Your task to perform on an android device: Open Yahoo.com Image 0: 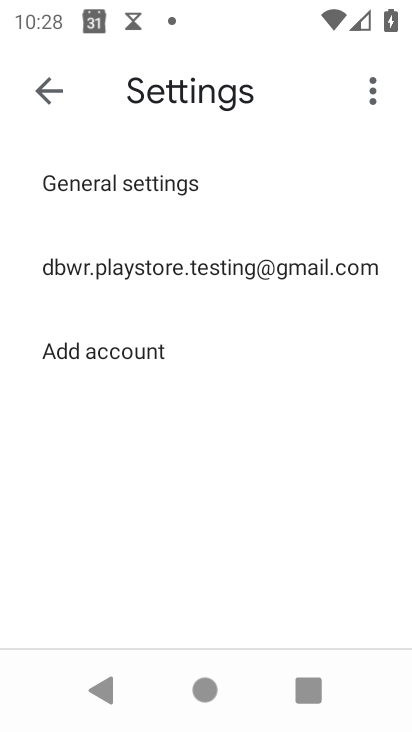
Step 0: press home button
Your task to perform on an android device: Open Yahoo.com Image 1: 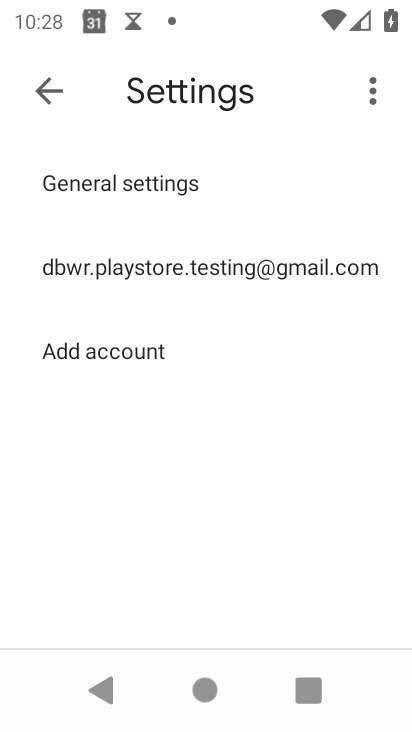
Step 1: press home button
Your task to perform on an android device: Open Yahoo.com Image 2: 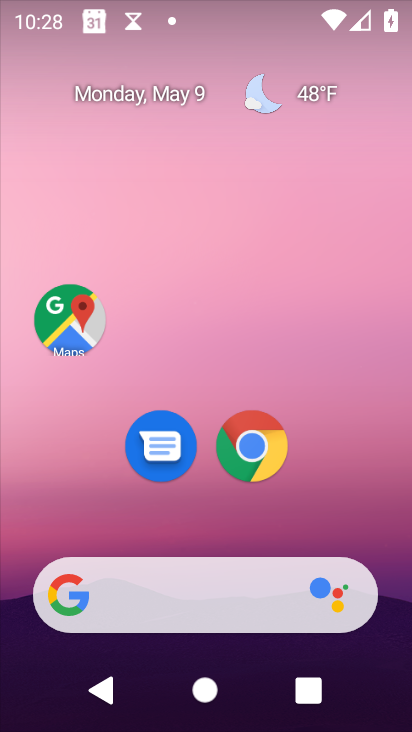
Step 2: click (267, 443)
Your task to perform on an android device: Open Yahoo.com Image 3: 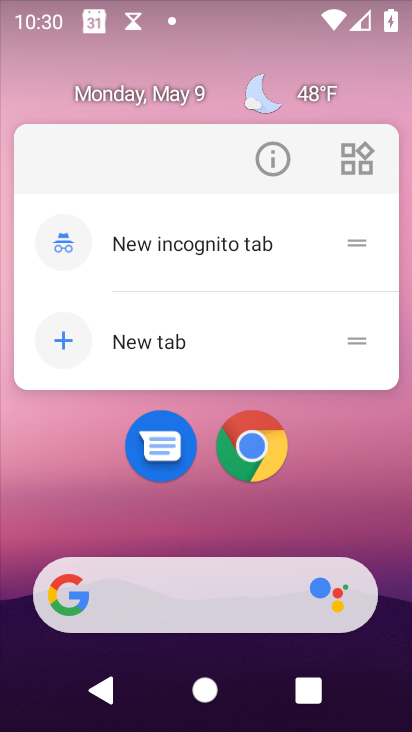
Step 3: click (250, 451)
Your task to perform on an android device: Open Yahoo.com Image 4: 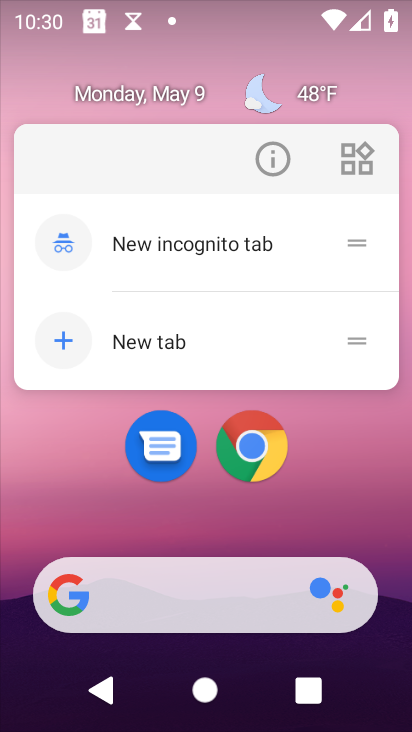
Step 4: click (250, 451)
Your task to perform on an android device: Open Yahoo.com Image 5: 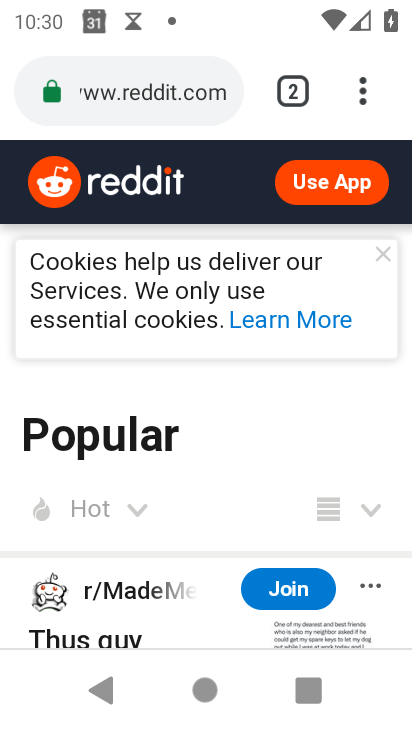
Step 5: click (164, 90)
Your task to perform on an android device: Open Yahoo.com Image 6: 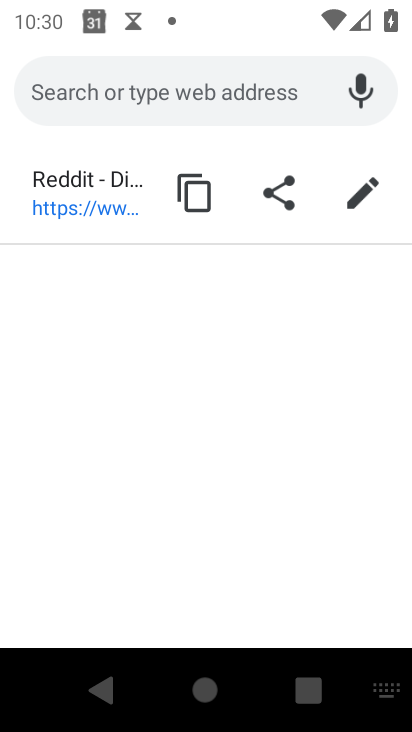
Step 6: click (119, 83)
Your task to perform on an android device: Open Yahoo.com Image 7: 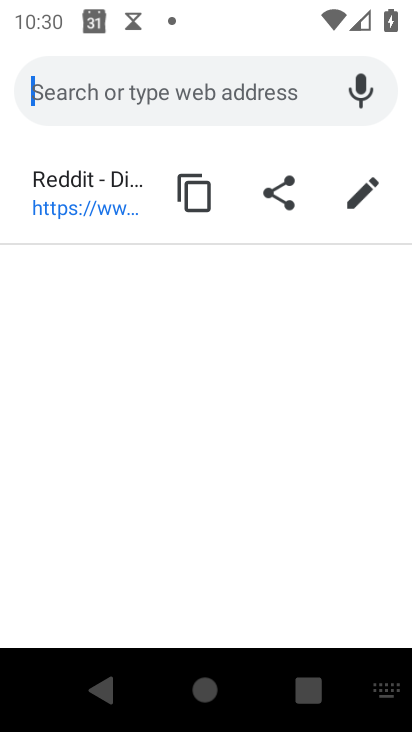
Step 7: type "Yahoo.com"
Your task to perform on an android device: Open Yahoo.com Image 8: 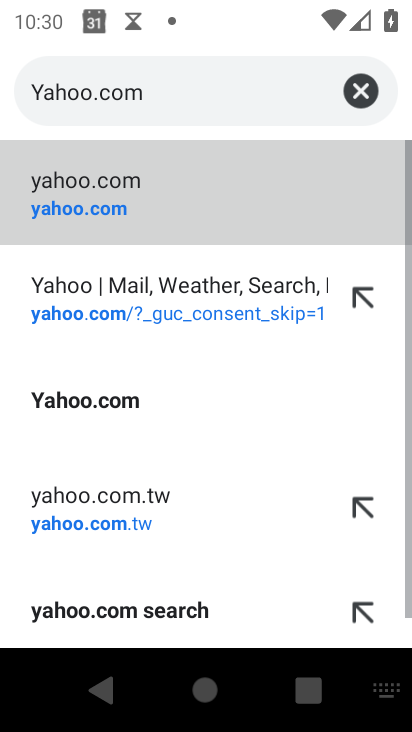
Step 8: click (223, 184)
Your task to perform on an android device: Open Yahoo.com Image 9: 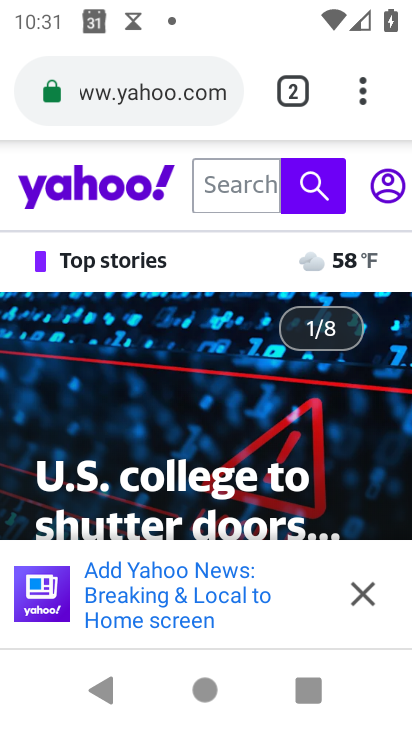
Step 9: task complete